Your task to perform on an android device: turn on location history Image 0: 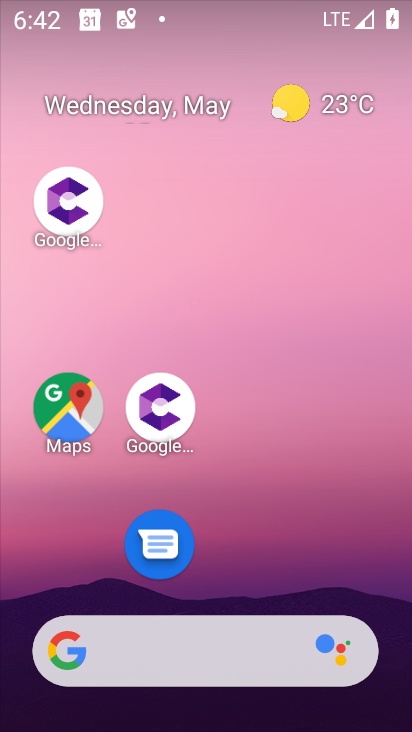
Step 0: click (61, 407)
Your task to perform on an android device: turn on location history Image 1: 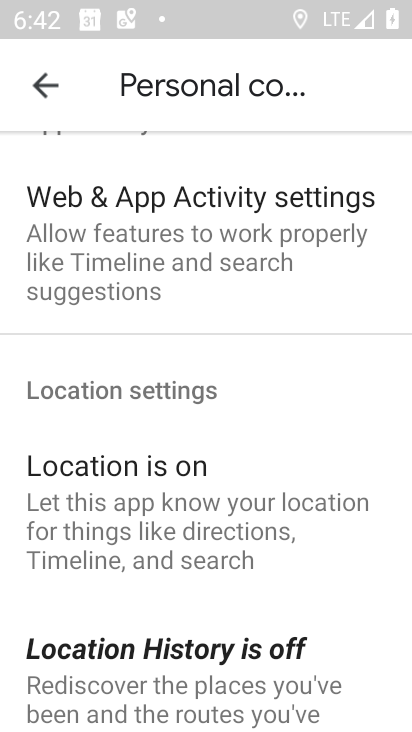
Step 1: click (168, 647)
Your task to perform on an android device: turn on location history Image 2: 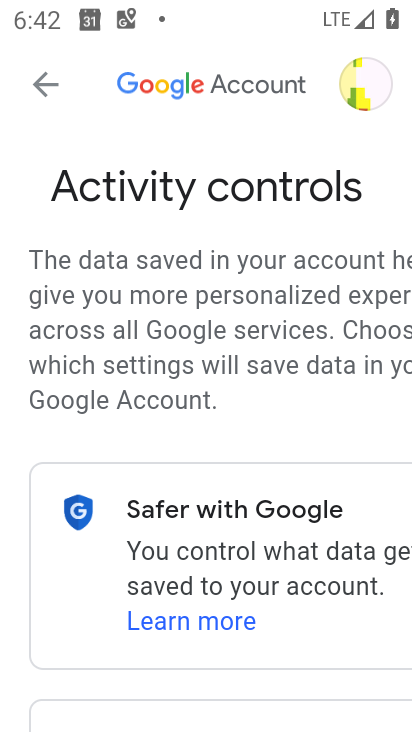
Step 2: drag from (278, 531) to (245, 181)
Your task to perform on an android device: turn on location history Image 3: 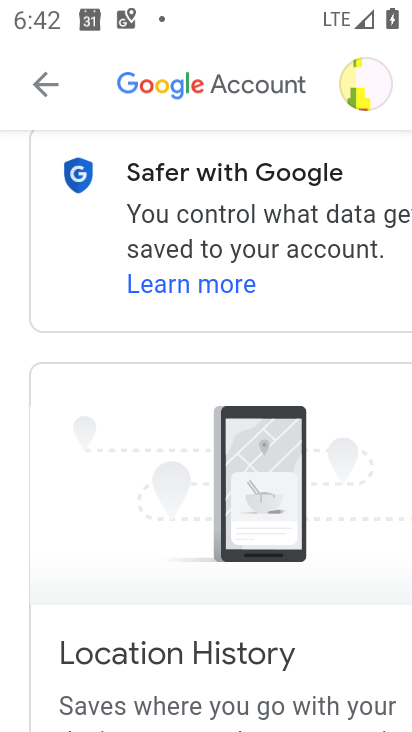
Step 3: drag from (301, 595) to (260, 192)
Your task to perform on an android device: turn on location history Image 4: 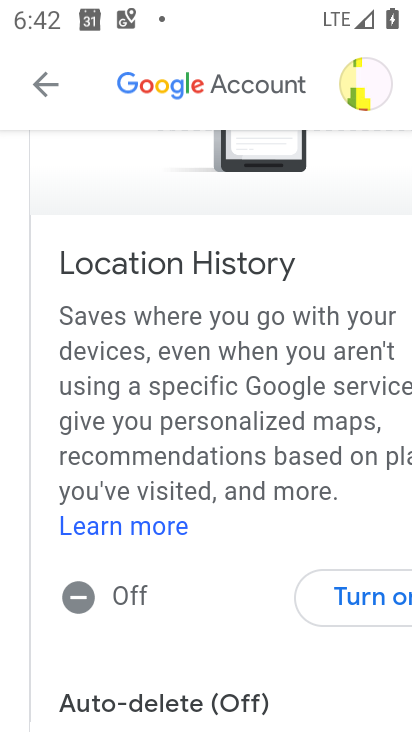
Step 4: click (363, 597)
Your task to perform on an android device: turn on location history Image 5: 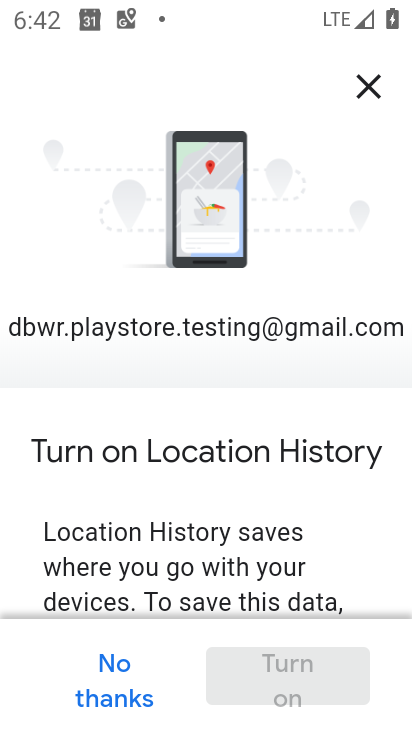
Step 5: drag from (290, 501) to (222, 51)
Your task to perform on an android device: turn on location history Image 6: 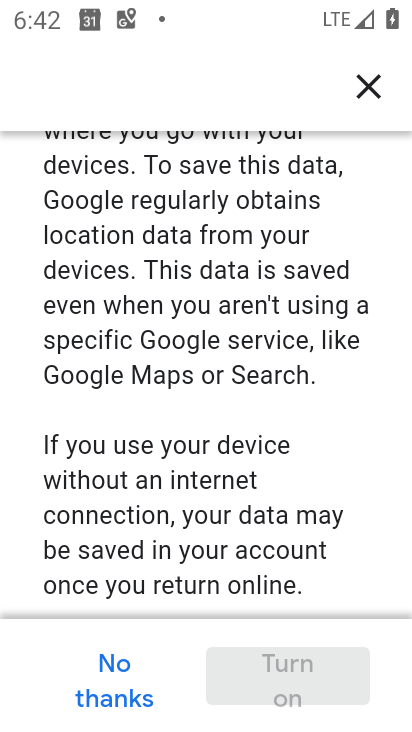
Step 6: drag from (274, 478) to (209, 93)
Your task to perform on an android device: turn on location history Image 7: 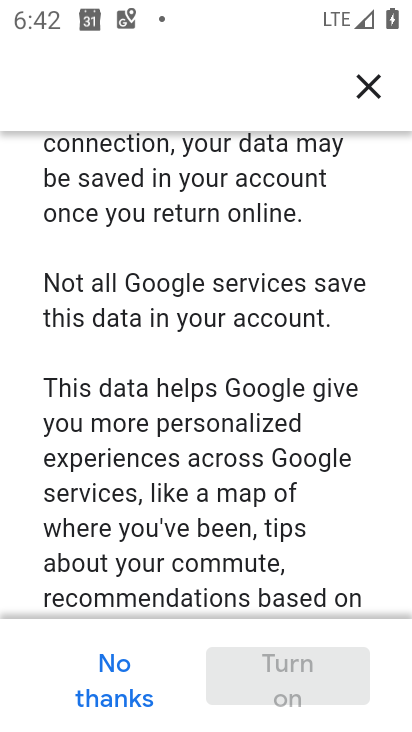
Step 7: drag from (291, 412) to (235, 103)
Your task to perform on an android device: turn on location history Image 8: 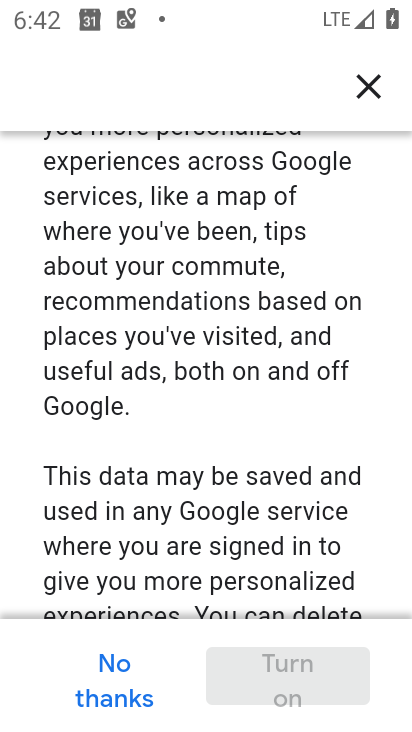
Step 8: drag from (287, 485) to (254, 213)
Your task to perform on an android device: turn on location history Image 9: 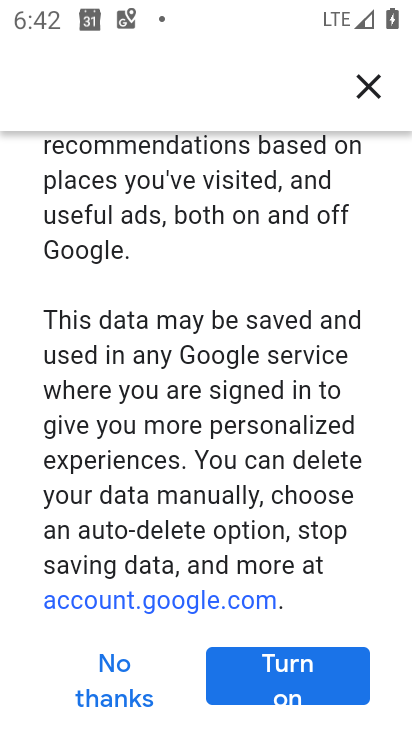
Step 9: click (288, 661)
Your task to perform on an android device: turn on location history Image 10: 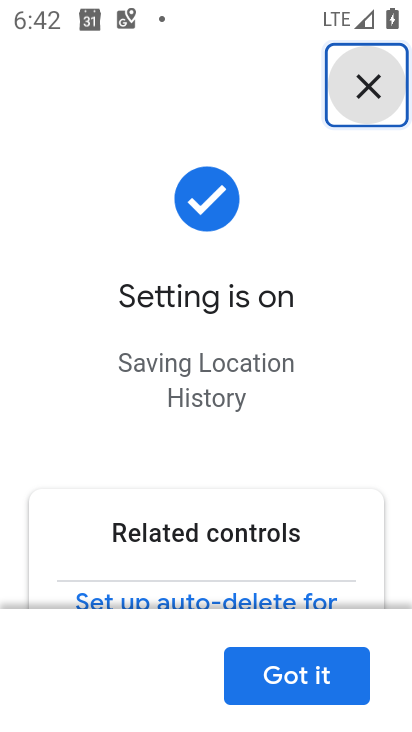
Step 10: click (290, 690)
Your task to perform on an android device: turn on location history Image 11: 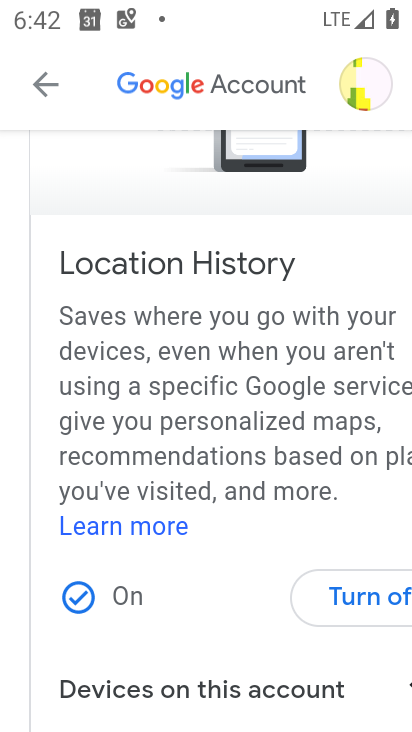
Step 11: task complete